Your task to perform on an android device: delete a single message in the gmail app Image 0: 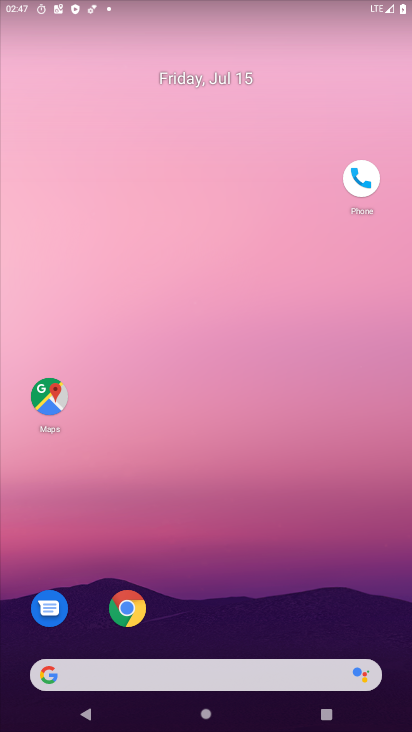
Step 0: drag from (183, 622) to (164, 142)
Your task to perform on an android device: delete a single message in the gmail app Image 1: 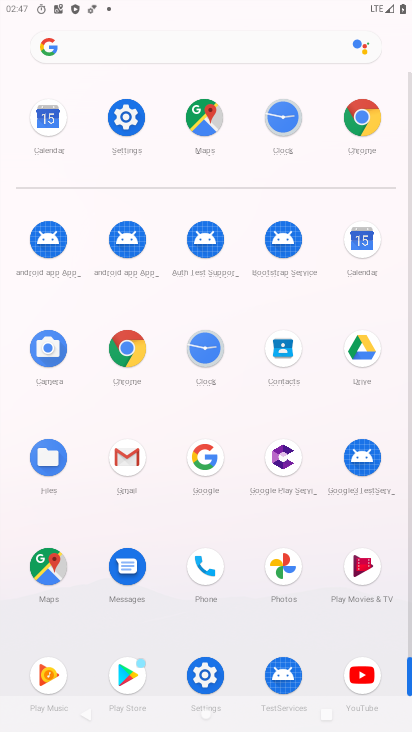
Step 1: click (129, 458)
Your task to perform on an android device: delete a single message in the gmail app Image 2: 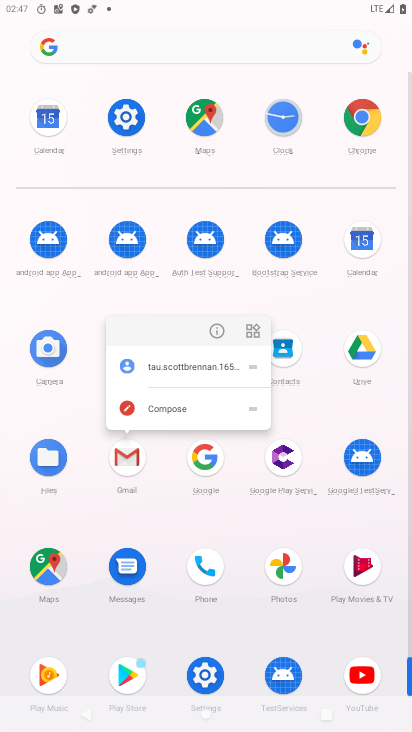
Step 2: click (210, 332)
Your task to perform on an android device: delete a single message in the gmail app Image 3: 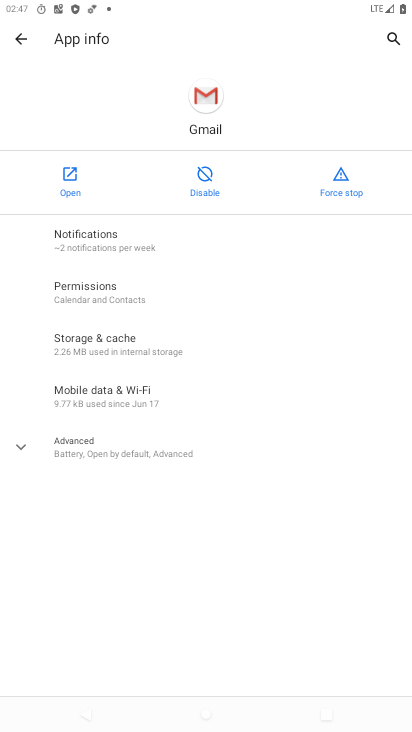
Step 3: click (217, 325)
Your task to perform on an android device: delete a single message in the gmail app Image 4: 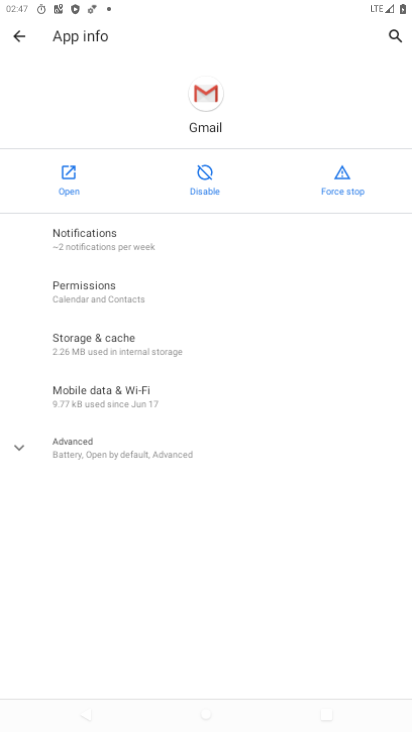
Step 4: drag from (67, 188) to (147, 494)
Your task to perform on an android device: delete a single message in the gmail app Image 5: 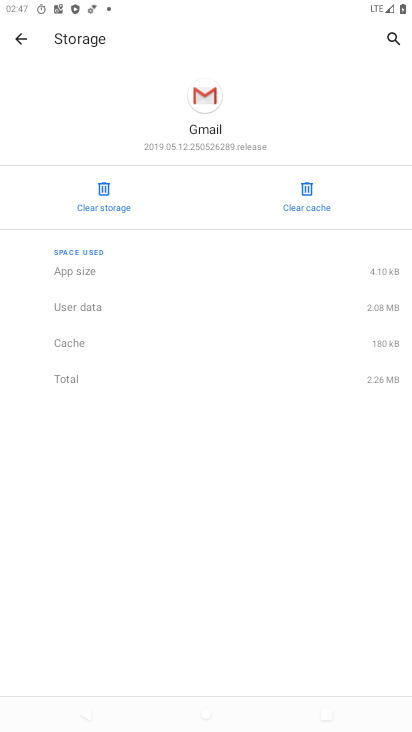
Step 5: click (21, 33)
Your task to perform on an android device: delete a single message in the gmail app Image 6: 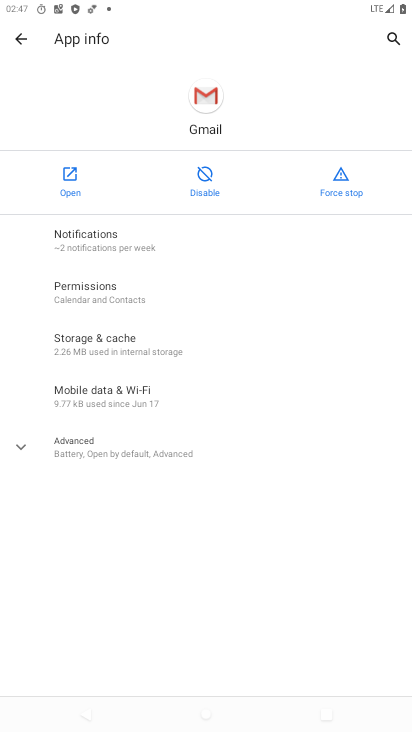
Step 6: click (79, 185)
Your task to perform on an android device: delete a single message in the gmail app Image 7: 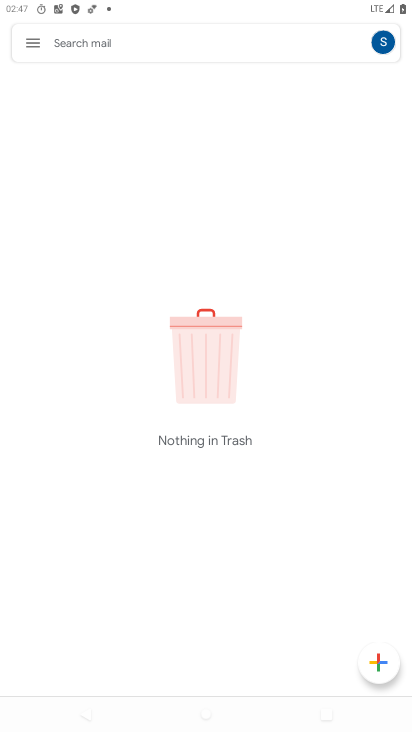
Step 7: drag from (252, 622) to (259, 400)
Your task to perform on an android device: delete a single message in the gmail app Image 8: 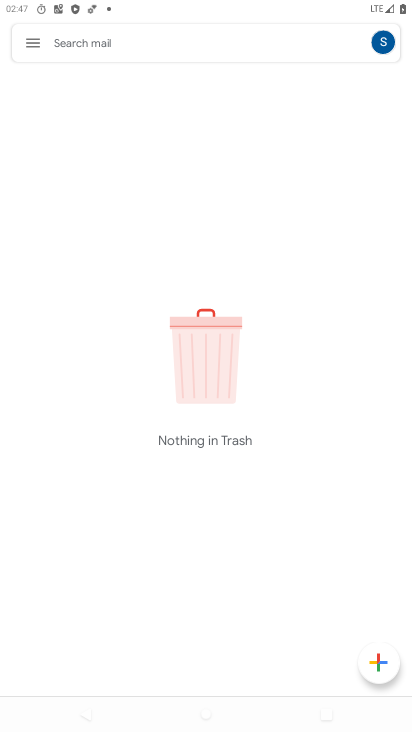
Step 8: click (203, 188)
Your task to perform on an android device: delete a single message in the gmail app Image 9: 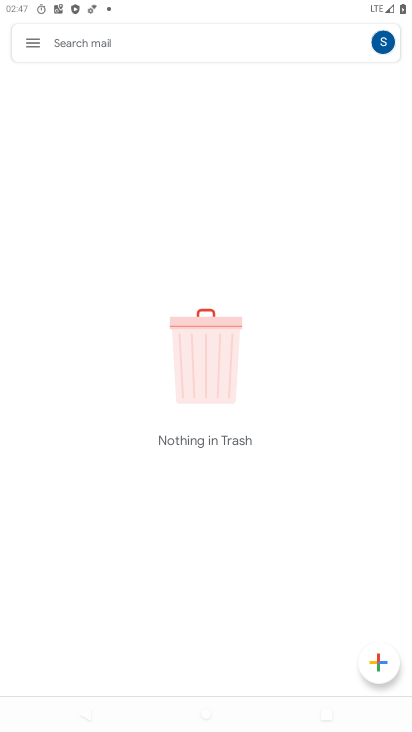
Step 9: task complete